Your task to perform on an android device: toggle show notifications on the lock screen Image 0: 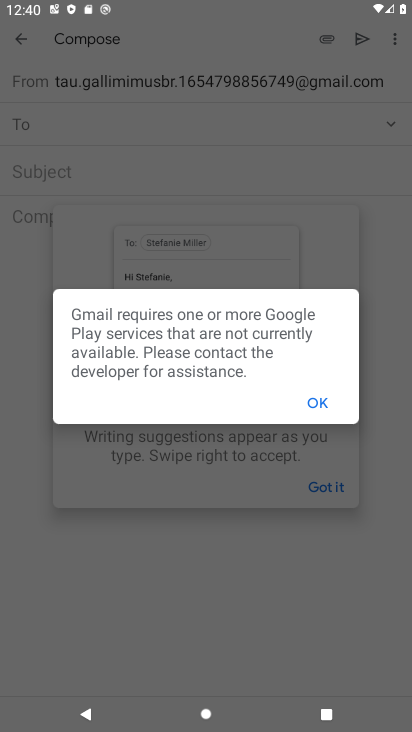
Step 0: press home button
Your task to perform on an android device: toggle show notifications on the lock screen Image 1: 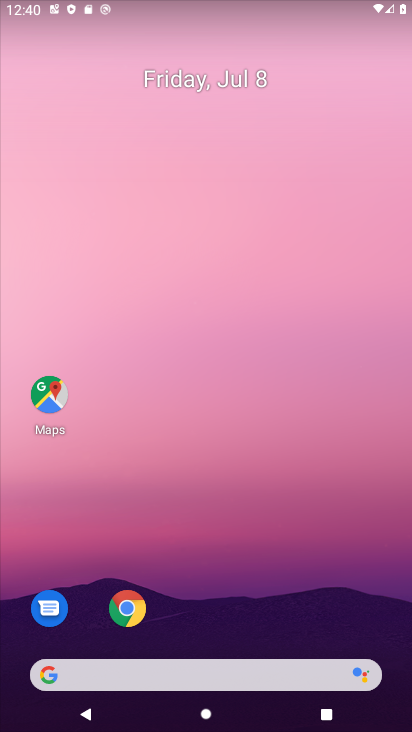
Step 1: drag from (264, 609) to (285, 200)
Your task to perform on an android device: toggle show notifications on the lock screen Image 2: 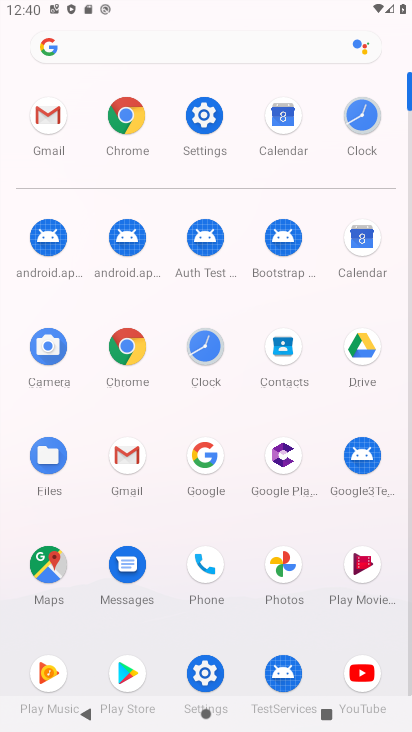
Step 2: click (204, 671)
Your task to perform on an android device: toggle show notifications on the lock screen Image 3: 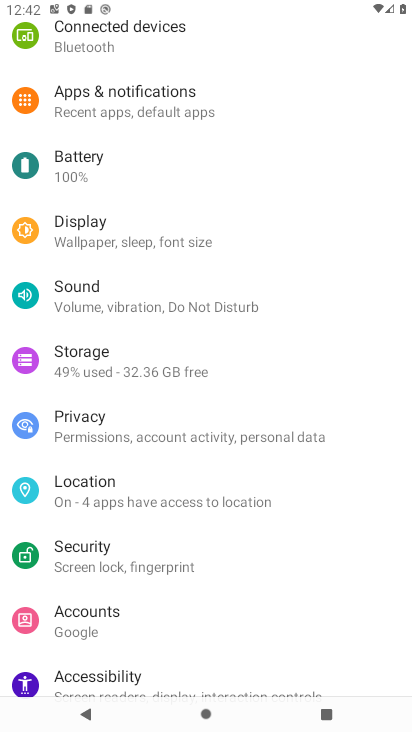
Step 3: click (181, 104)
Your task to perform on an android device: toggle show notifications on the lock screen Image 4: 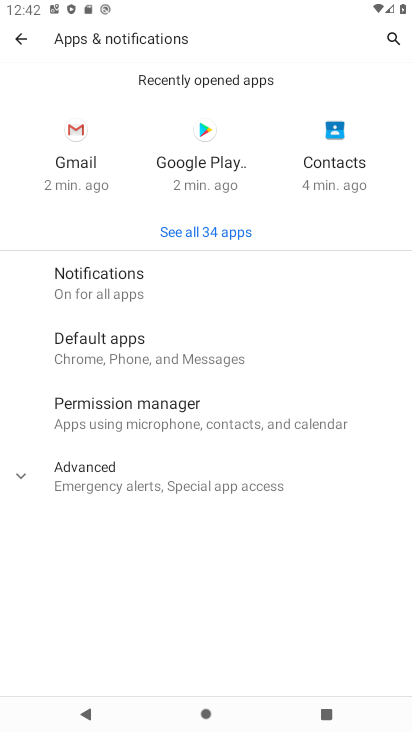
Step 4: click (292, 289)
Your task to perform on an android device: toggle show notifications on the lock screen Image 5: 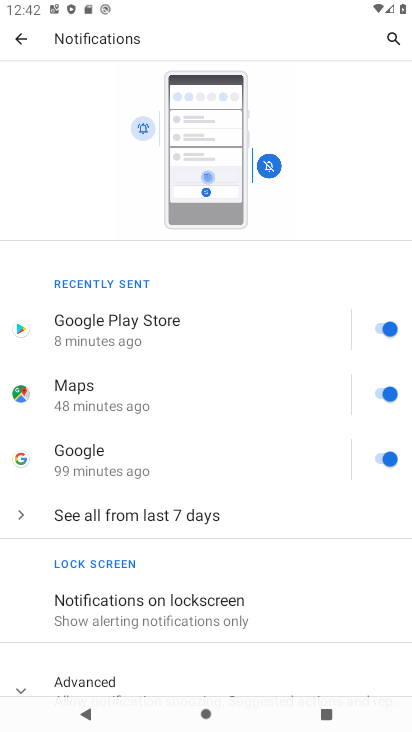
Step 5: click (207, 617)
Your task to perform on an android device: toggle show notifications on the lock screen Image 6: 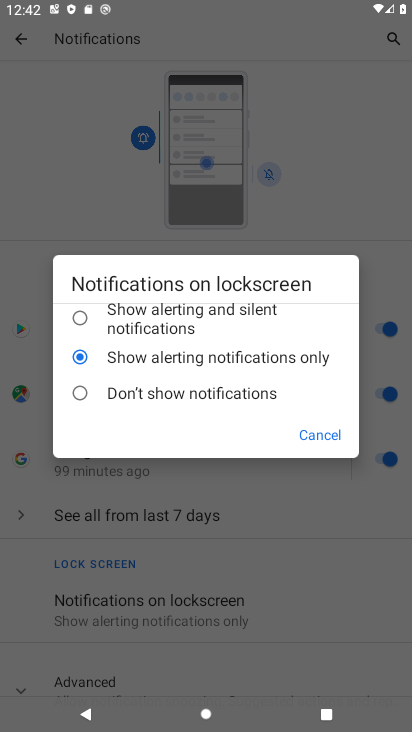
Step 6: task complete